Your task to perform on an android device: toggle notification dots Image 0: 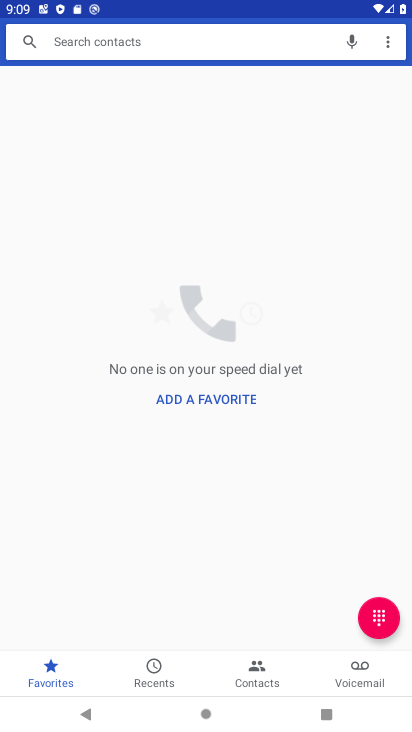
Step 0: press home button
Your task to perform on an android device: toggle notification dots Image 1: 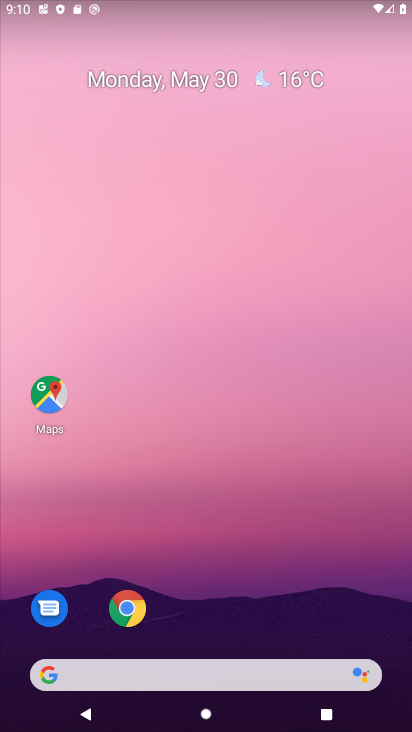
Step 1: click (132, 604)
Your task to perform on an android device: toggle notification dots Image 2: 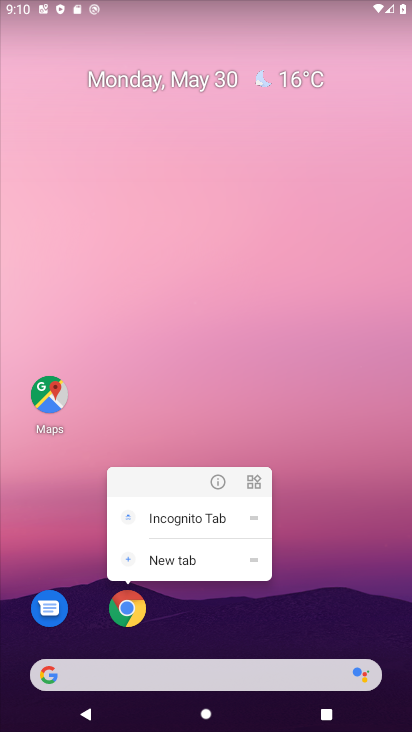
Step 2: click (320, 561)
Your task to perform on an android device: toggle notification dots Image 3: 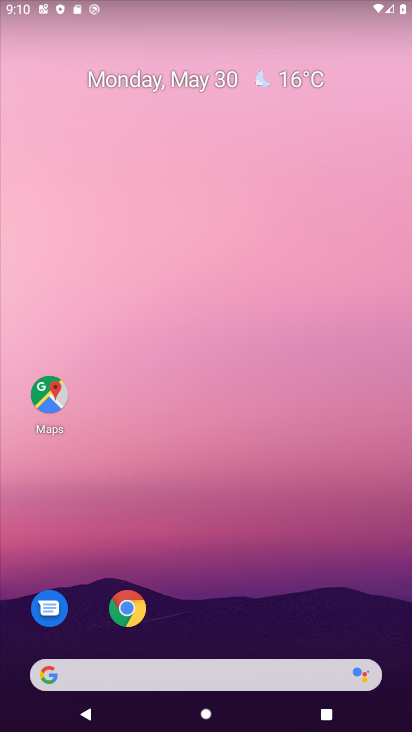
Step 3: drag from (397, 676) to (372, 91)
Your task to perform on an android device: toggle notification dots Image 4: 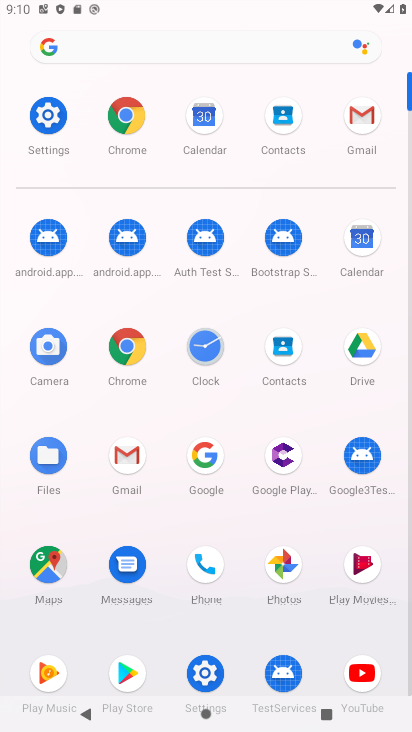
Step 4: click (58, 114)
Your task to perform on an android device: toggle notification dots Image 5: 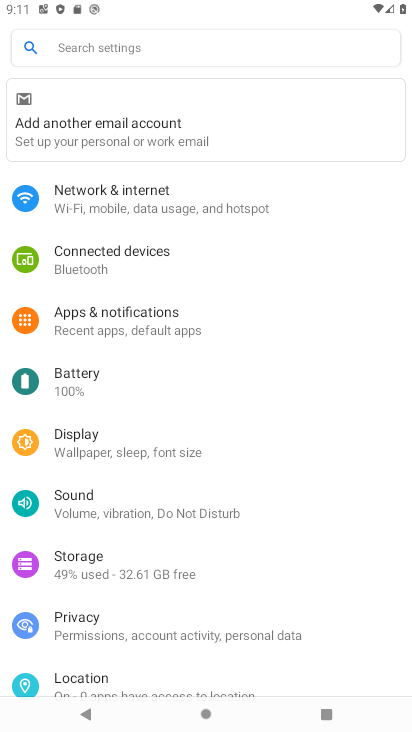
Step 5: drag from (139, 670) to (166, 337)
Your task to perform on an android device: toggle notification dots Image 6: 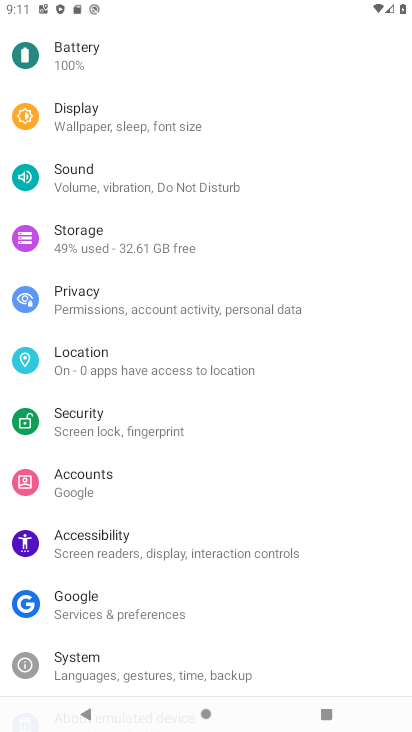
Step 6: drag from (214, 122) to (239, 478)
Your task to perform on an android device: toggle notification dots Image 7: 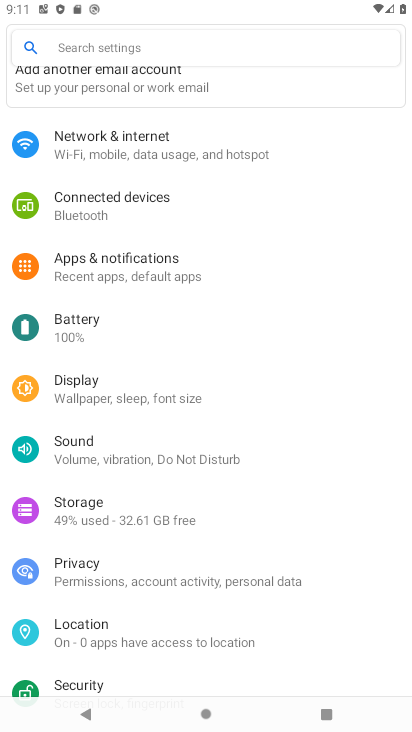
Step 7: click (99, 272)
Your task to perform on an android device: toggle notification dots Image 8: 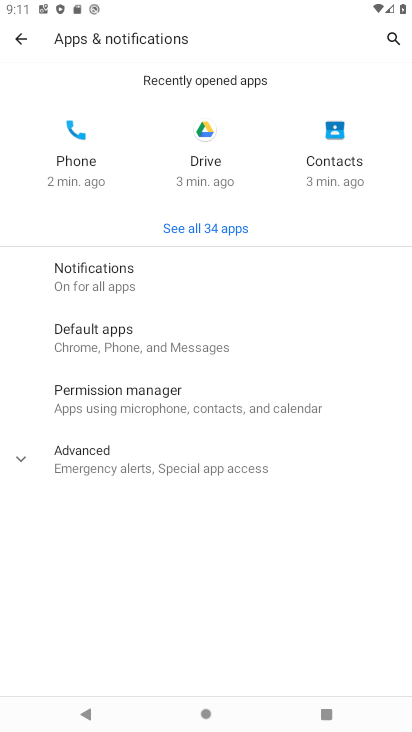
Step 8: click (89, 284)
Your task to perform on an android device: toggle notification dots Image 9: 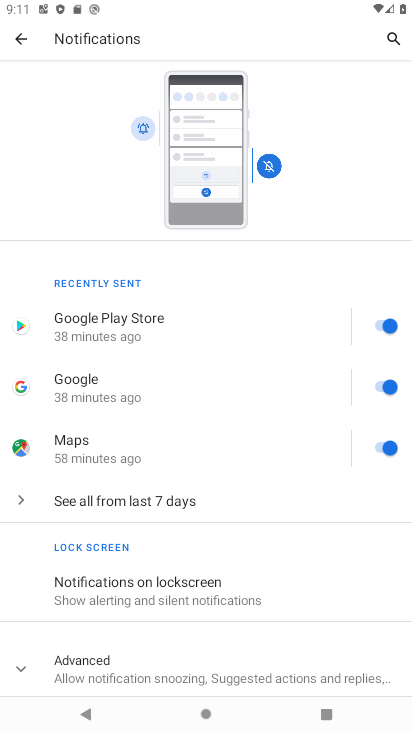
Step 9: drag from (176, 644) to (187, 424)
Your task to perform on an android device: toggle notification dots Image 10: 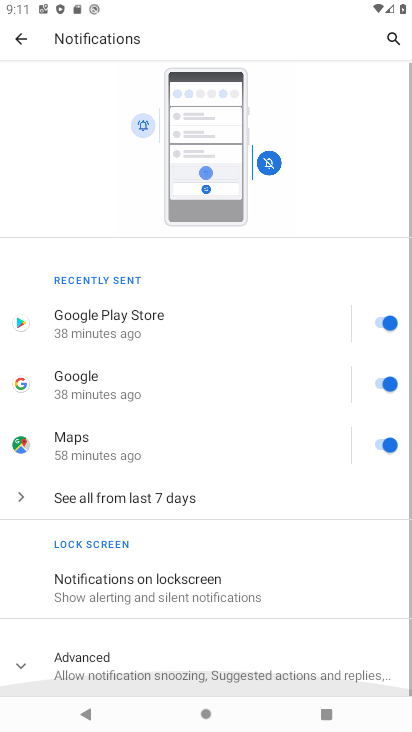
Step 10: click (59, 662)
Your task to perform on an android device: toggle notification dots Image 11: 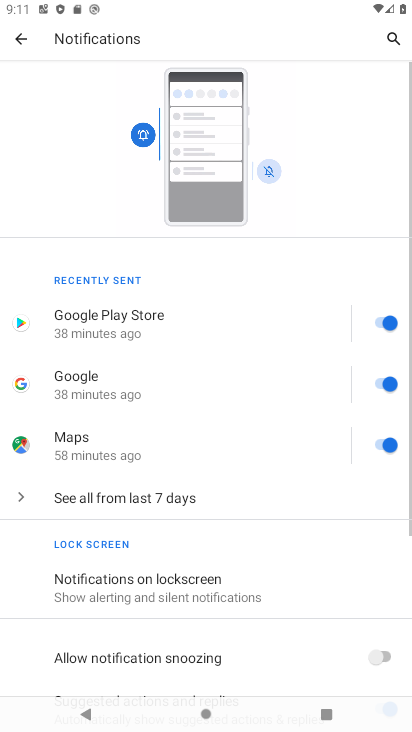
Step 11: drag from (207, 681) to (238, 277)
Your task to perform on an android device: toggle notification dots Image 12: 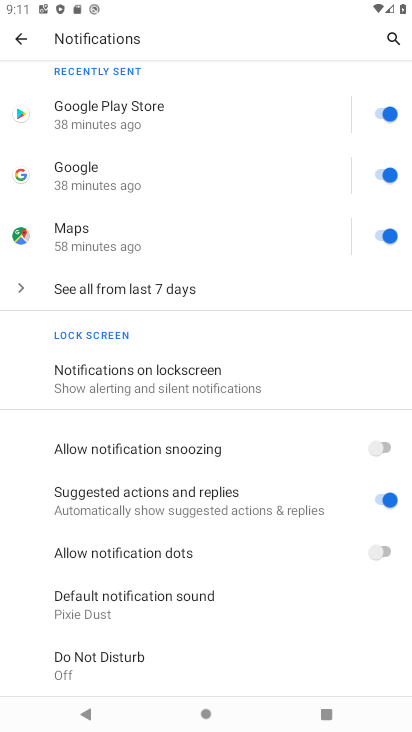
Step 12: click (383, 552)
Your task to perform on an android device: toggle notification dots Image 13: 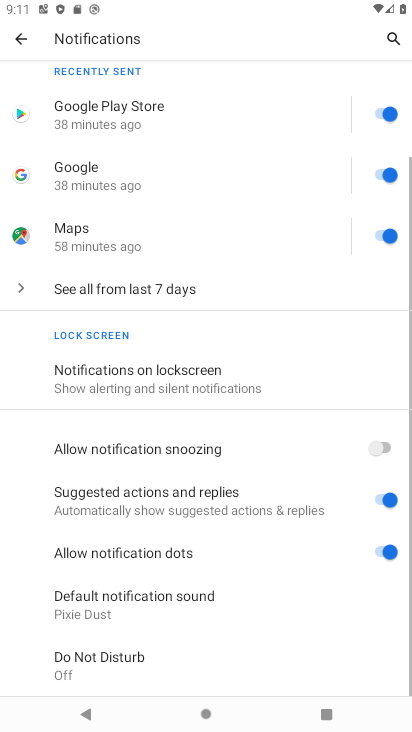
Step 13: task complete